Your task to perform on an android device: set the stopwatch Image 0: 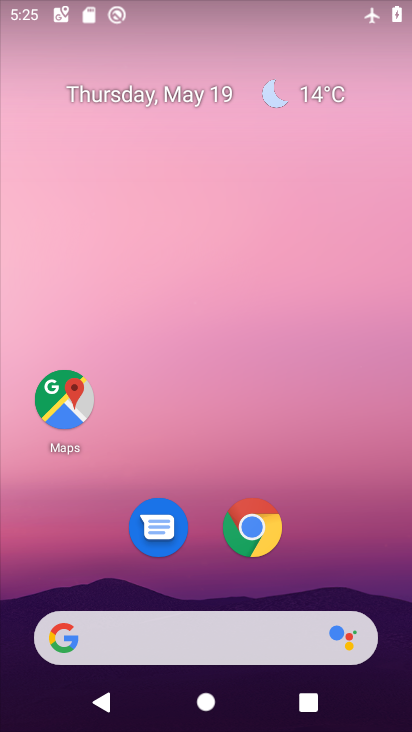
Step 0: drag from (299, 463) to (181, 36)
Your task to perform on an android device: set the stopwatch Image 1: 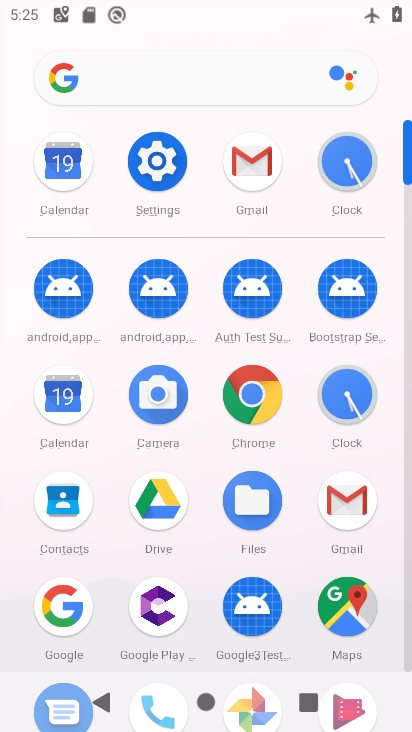
Step 1: click (352, 162)
Your task to perform on an android device: set the stopwatch Image 2: 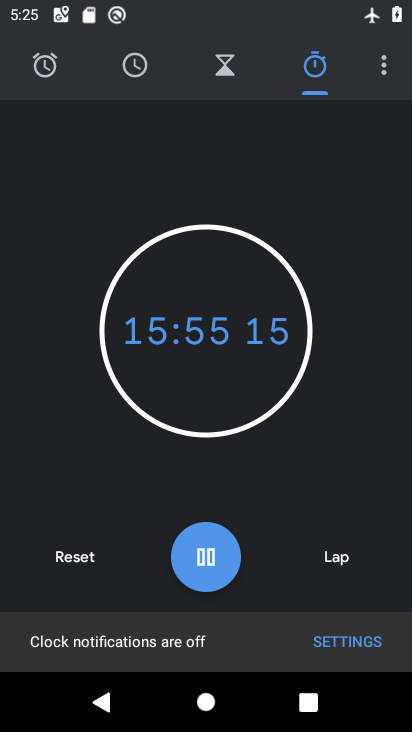
Step 2: click (80, 558)
Your task to perform on an android device: set the stopwatch Image 3: 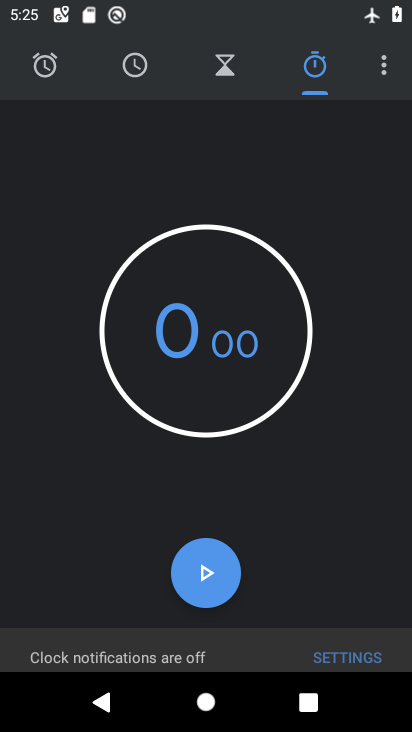
Step 3: click (211, 559)
Your task to perform on an android device: set the stopwatch Image 4: 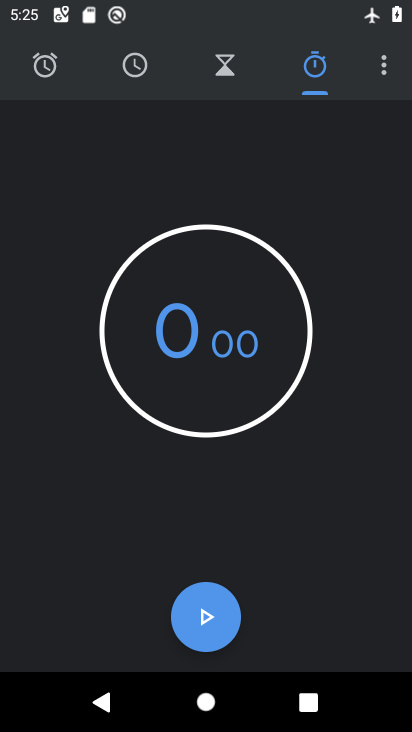
Step 4: click (205, 620)
Your task to perform on an android device: set the stopwatch Image 5: 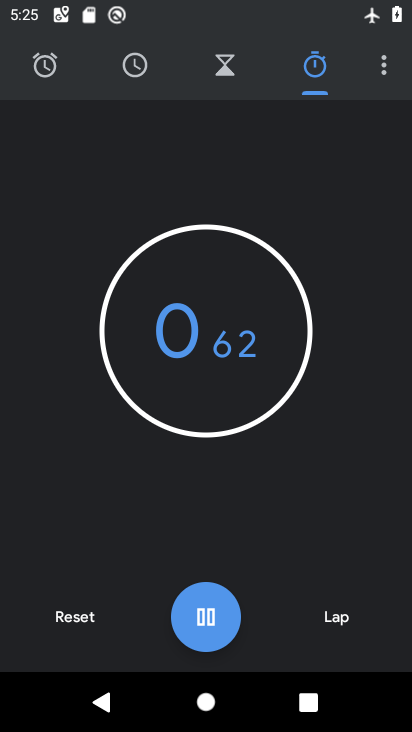
Step 5: task complete